Your task to perform on an android device: Open location settings Image 0: 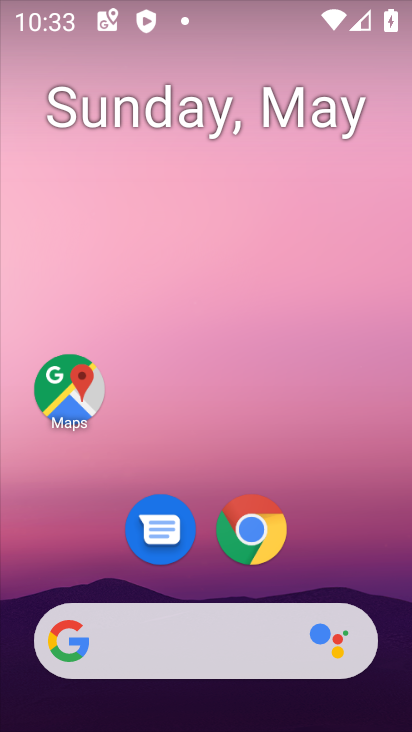
Step 0: drag from (207, 622) to (194, 48)
Your task to perform on an android device: Open location settings Image 1: 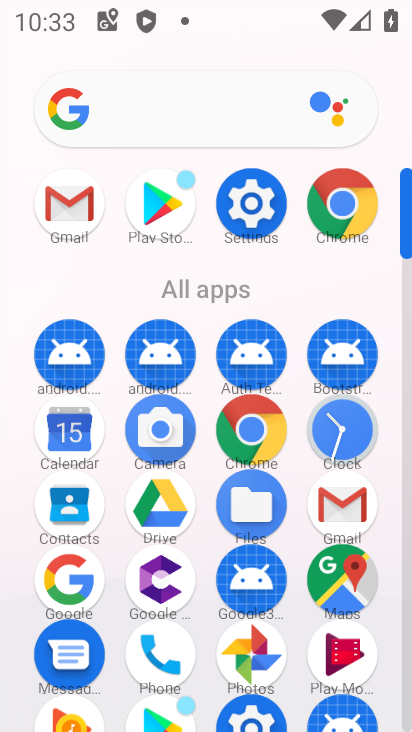
Step 1: click (246, 233)
Your task to perform on an android device: Open location settings Image 2: 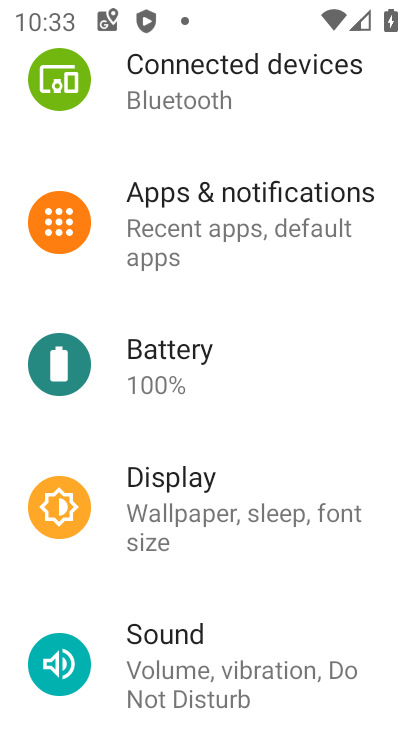
Step 2: drag from (185, 539) to (120, 1)
Your task to perform on an android device: Open location settings Image 3: 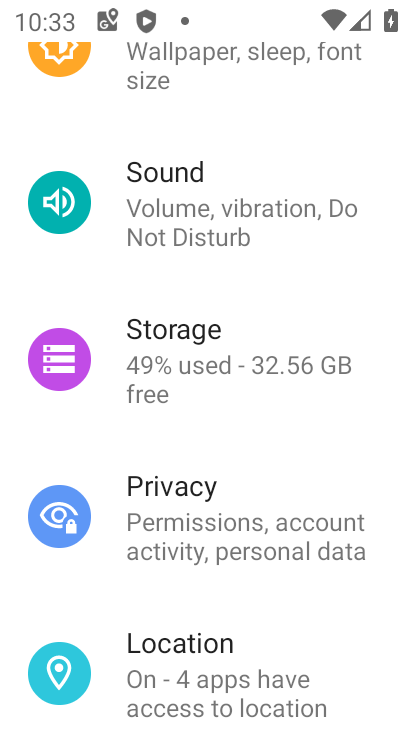
Step 3: click (177, 653)
Your task to perform on an android device: Open location settings Image 4: 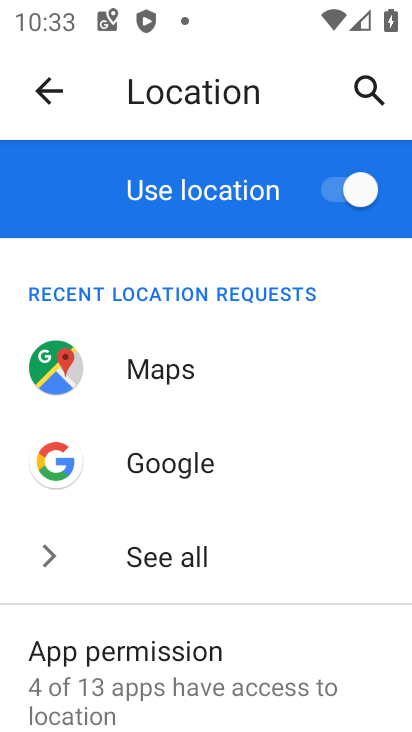
Step 4: task complete